Your task to perform on an android device: Open my contact list Image 0: 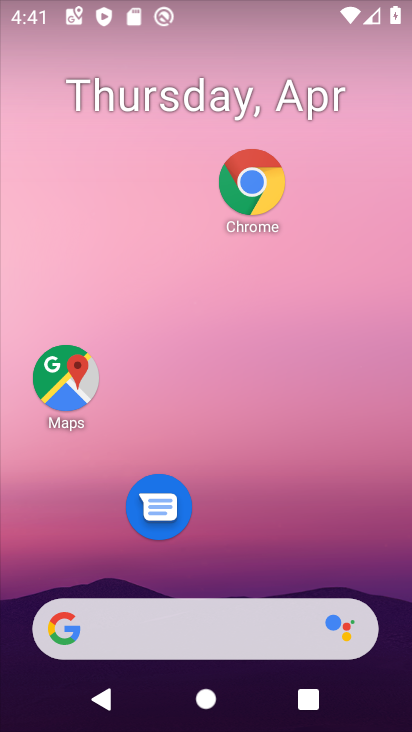
Step 0: drag from (209, 723) to (209, 140)
Your task to perform on an android device: Open my contact list Image 1: 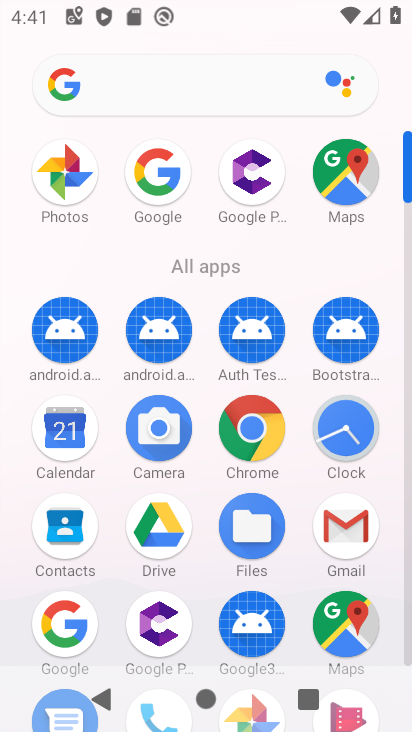
Step 1: click (68, 520)
Your task to perform on an android device: Open my contact list Image 2: 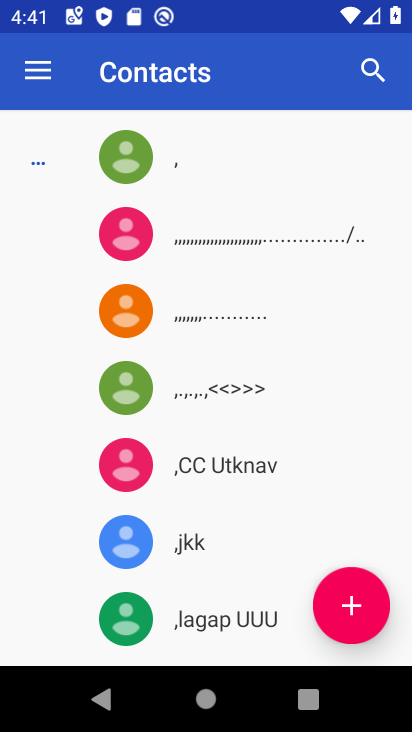
Step 2: task complete